Your task to perform on an android device: What's the weather going to be tomorrow? Image 0: 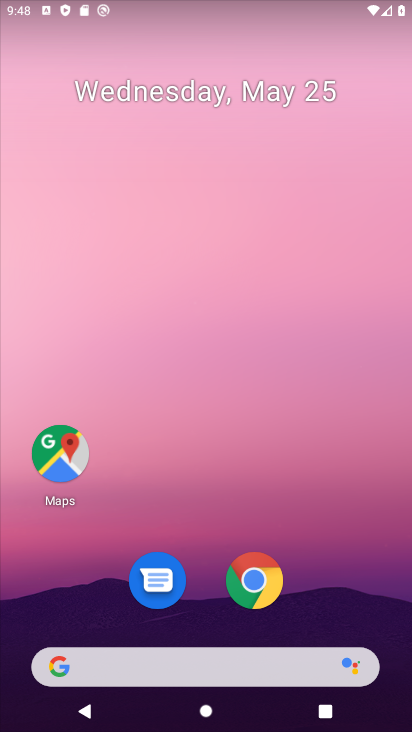
Step 0: click (226, 662)
Your task to perform on an android device: What's the weather going to be tomorrow? Image 1: 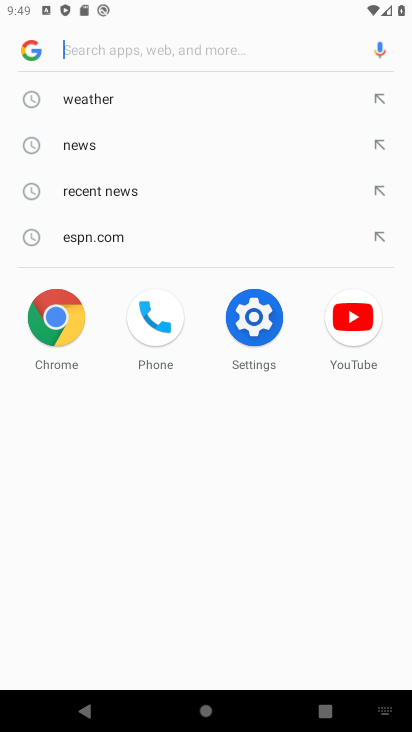
Step 1: click (134, 87)
Your task to perform on an android device: What's the weather going to be tomorrow? Image 2: 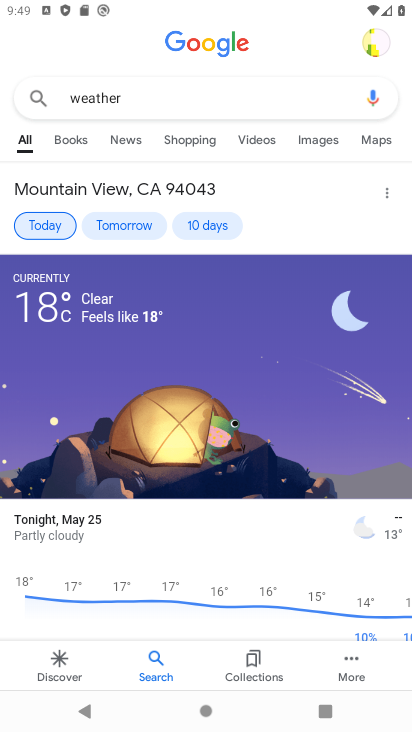
Step 2: task complete